Your task to perform on an android device: check battery use Image 0: 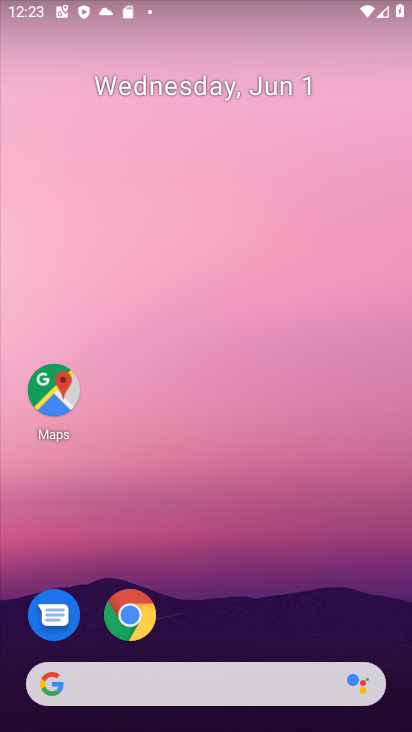
Step 0: click (408, 586)
Your task to perform on an android device: check battery use Image 1: 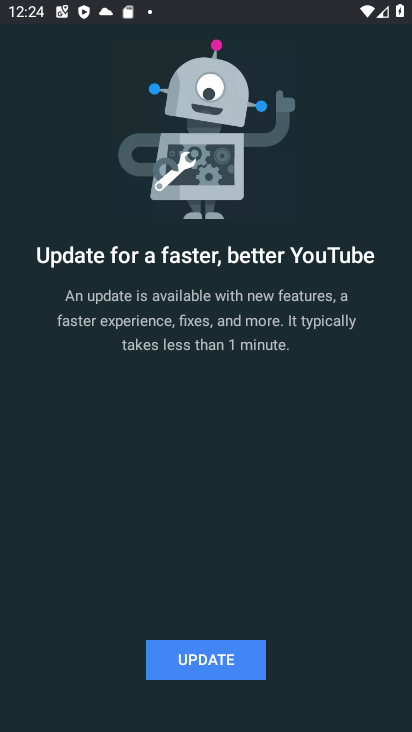
Step 1: task complete